Your task to perform on an android device: all mails in gmail Image 0: 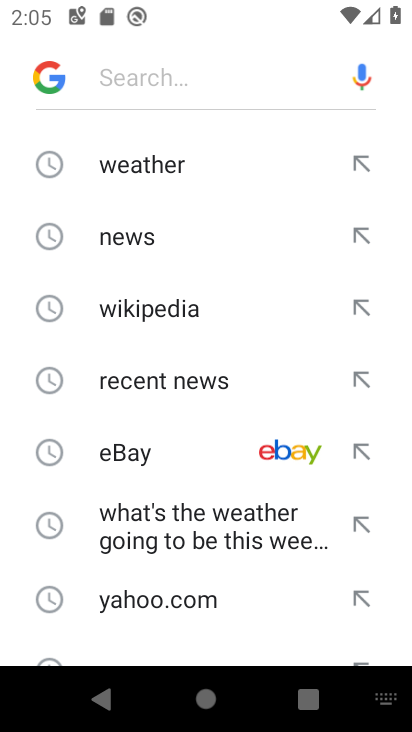
Step 0: press home button
Your task to perform on an android device: all mails in gmail Image 1: 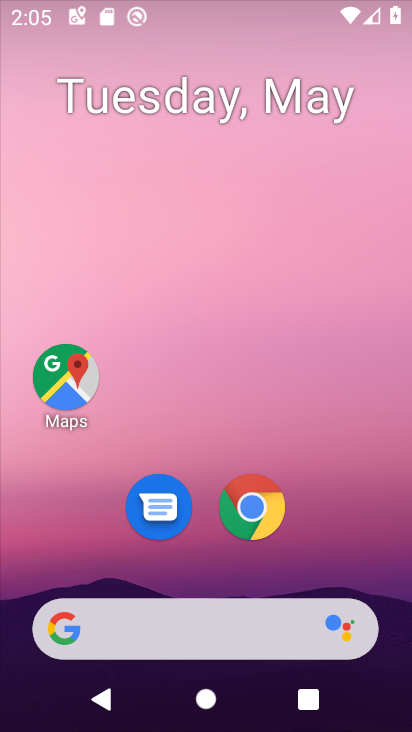
Step 1: drag from (201, 559) to (249, 171)
Your task to perform on an android device: all mails in gmail Image 2: 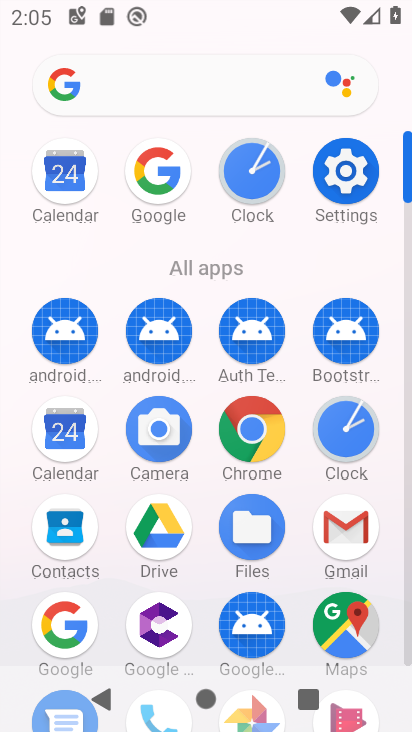
Step 2: click (354, 533)
Your task to perform on an android device: all mails in gmail Image 3: 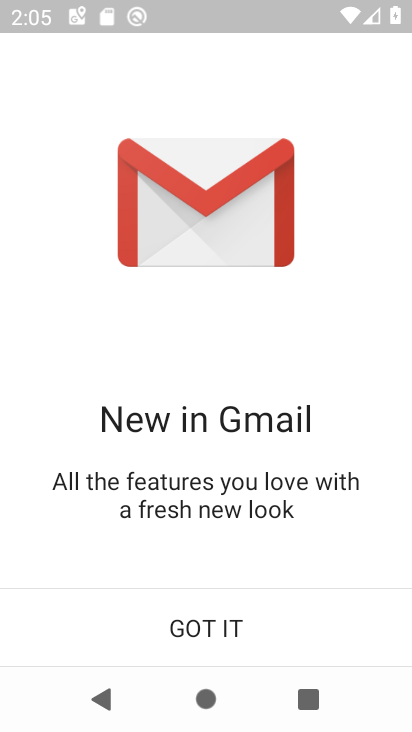
Step 3: click (234, 620)
Your task to perform on an android device: all mails in gmail Image 4: 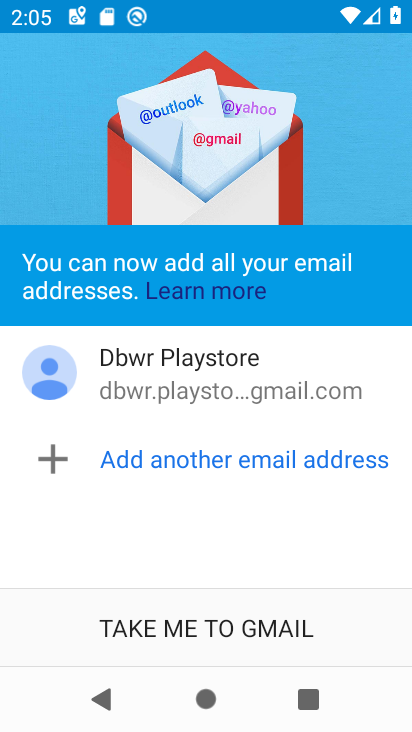
Step 4: click (225, 644)
Your task to perform on an android device: all mails in gmail Image 5: 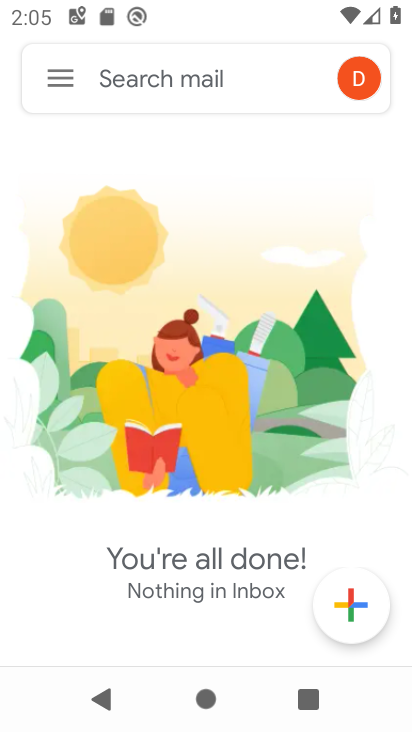
Step 5: click (62, 69)
Your task to perform on an android device: all mails in gmail Image 6: 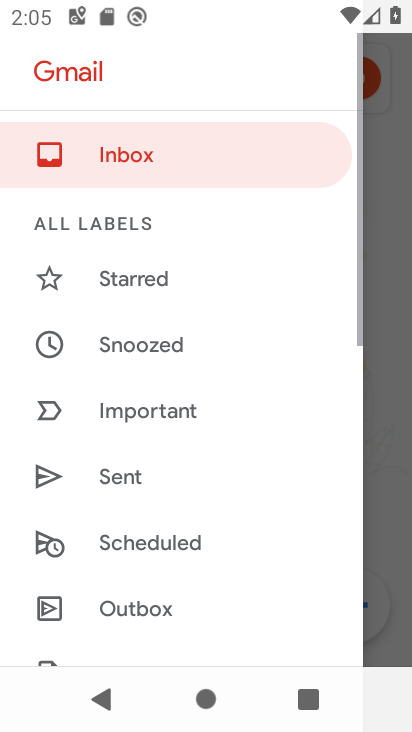
Step 6: drag from (164, 600) to (169, 295)
Your task to perform on an android device: all mails in gmail Image 7: 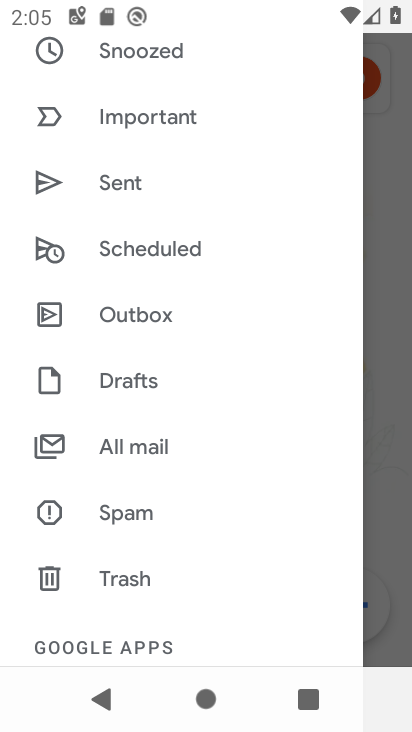
Step 7: click (149, 452)
Your task to perform on an android device: all mails in gmail Image 8: 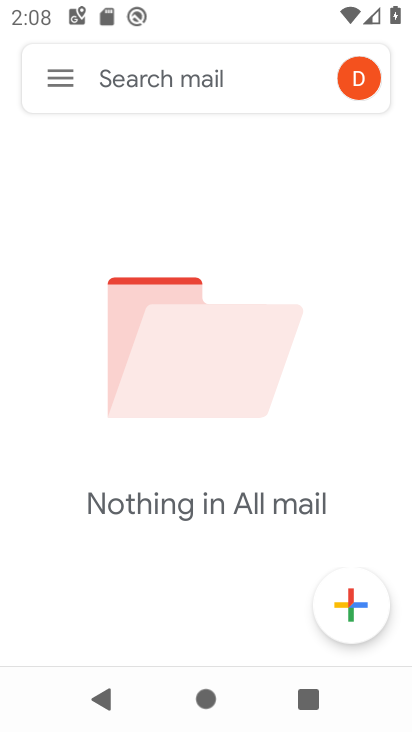
Step 8: click (60, 79)
Your task to perform on an android device: all mails in gmail Image 9: 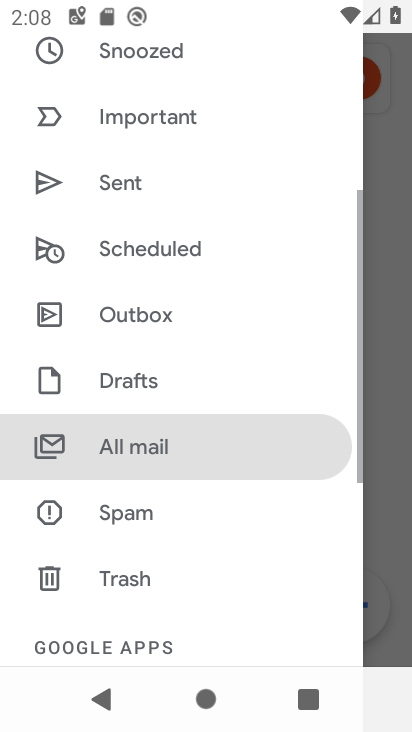
Step 9: click (122, 461)
Your task to perform on an android device: all mails in gmail Image 10: 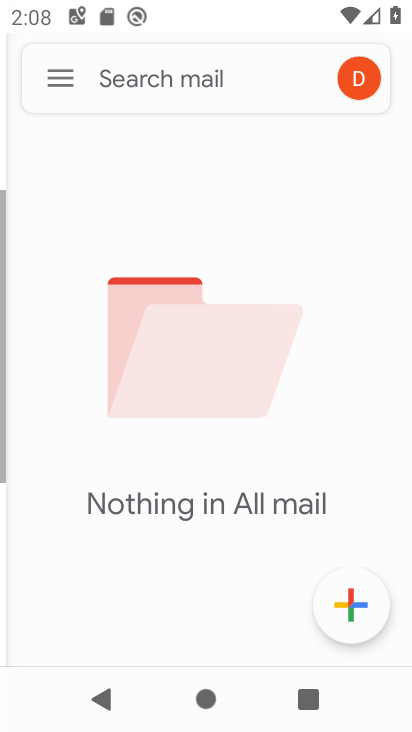
Step 10: task complete